Your task to perform on an android device: turn on notifications settings in the gmail app Image 0: 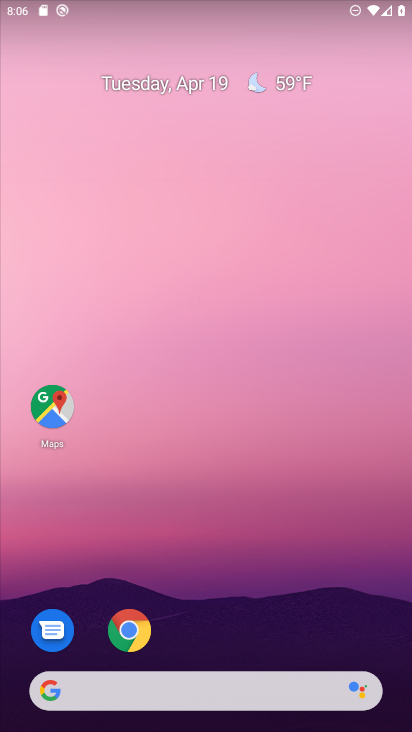
Step 0: drag from (196, 579) to (234, 70)
Your task to perform on an android device: turn on notifications settings in the gmail app Image 1: 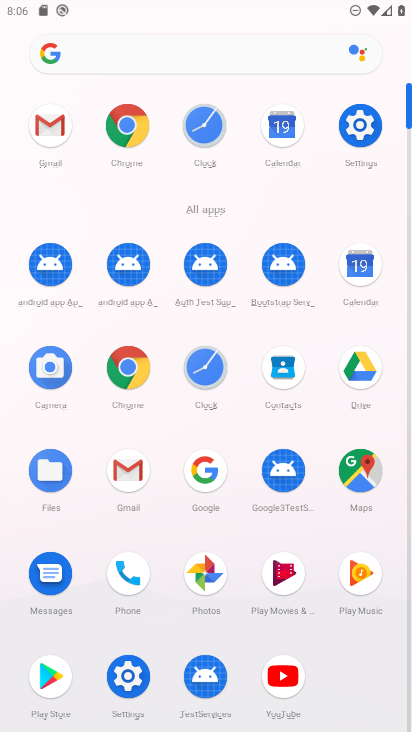
Step 1: click (55, 135)
Your task to perform on an android device: turn on notifications settings in the gmail app Image 2: 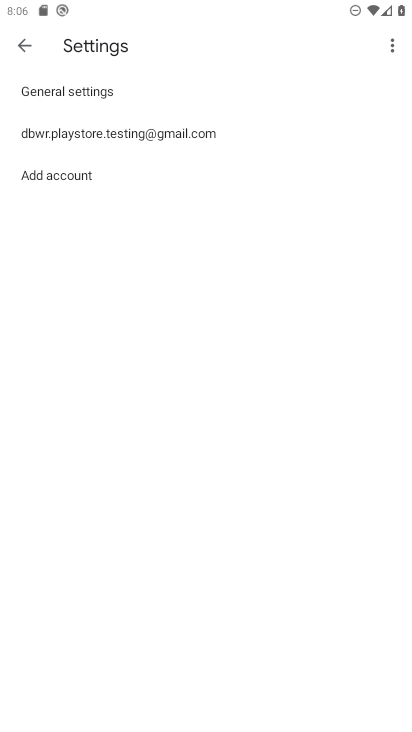
Step 2: click (63, 91)
Your task to perform on an android device: turn on notifications settings in the gmail app Image 3: 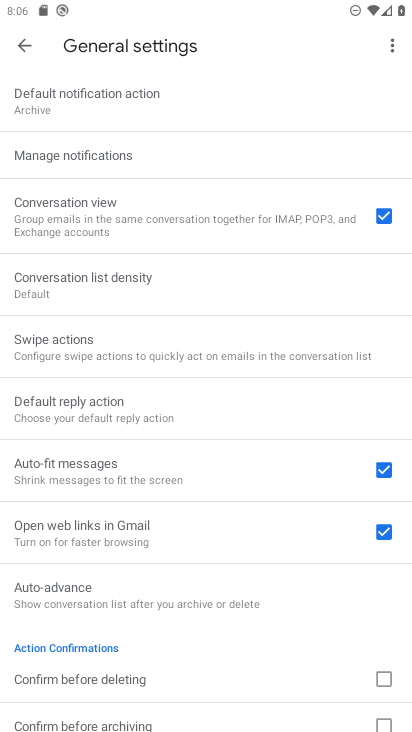
Step 3: click (92, 164)
Your task to perform on an android device: turn on notifications settings in the gmail app Image 4: 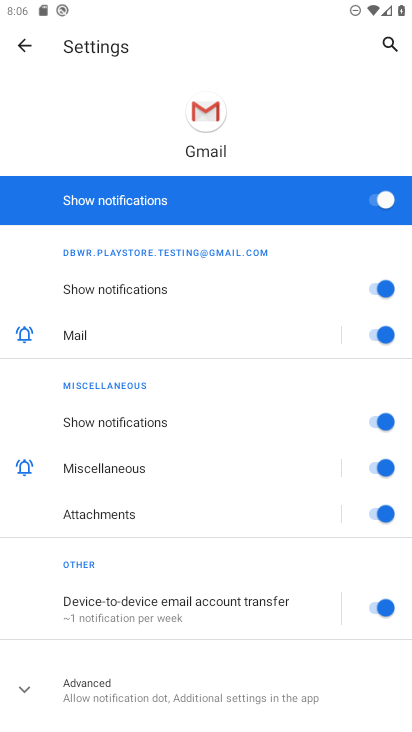
Step 4: task complete